Your task to perform on an android device: Search for hotels in Washington DC Image 0: 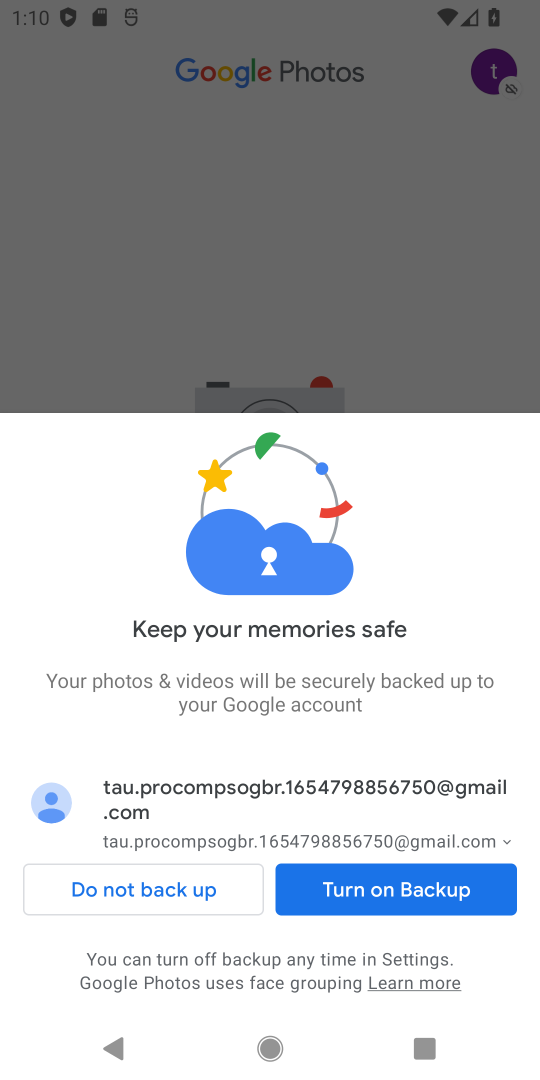
Step 0: press home button
Your task to perform on an android device: Search for hotels in Washington DC Image 1: 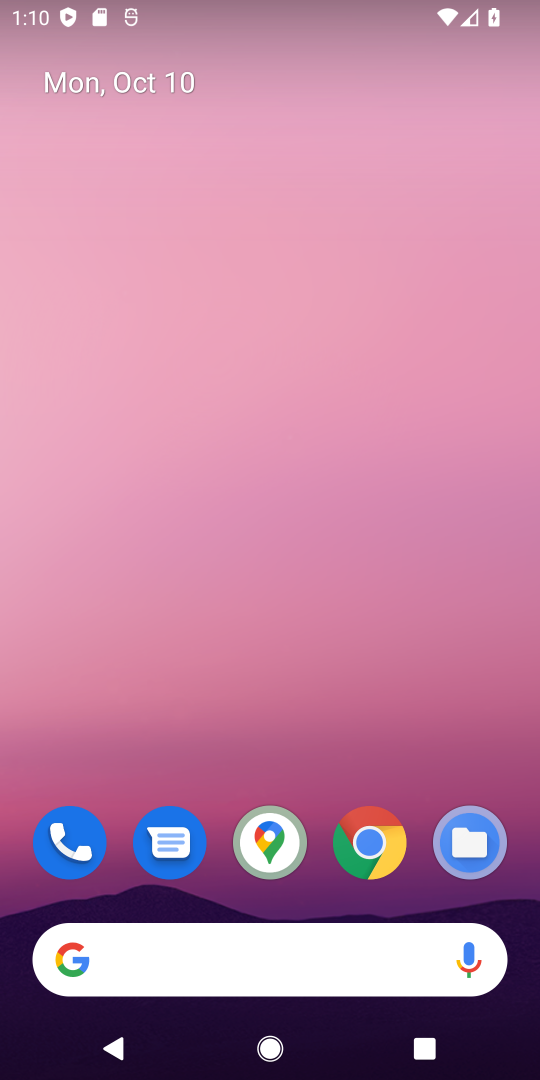
Step 1: click (389, 826)
Your task to perform on an android device: Search for hotels in Washington DC Image 2: 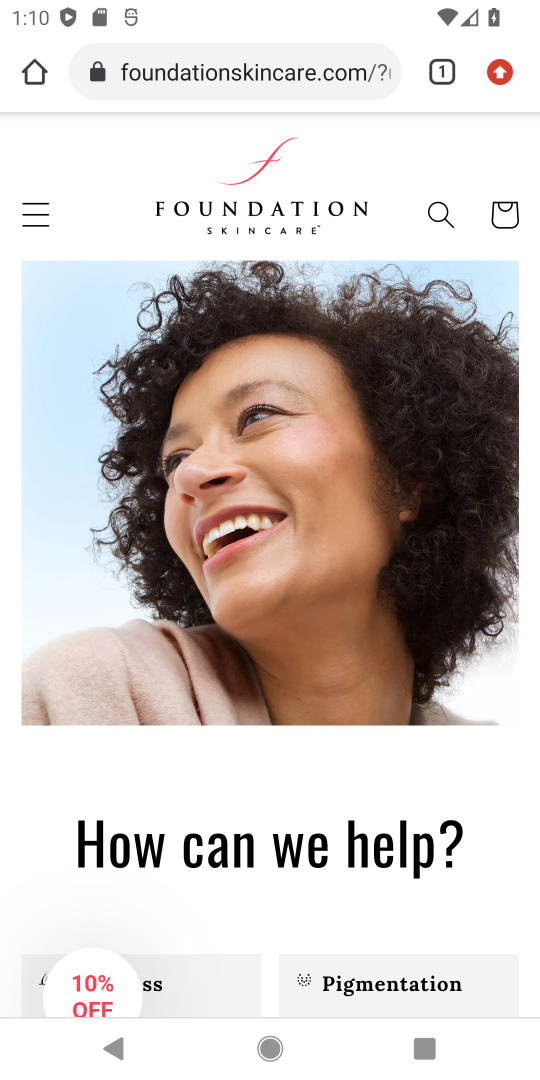
Step 2: click (269, 70)
Your task to perform on an android device: Search for hotels in Washington DC Image 3: 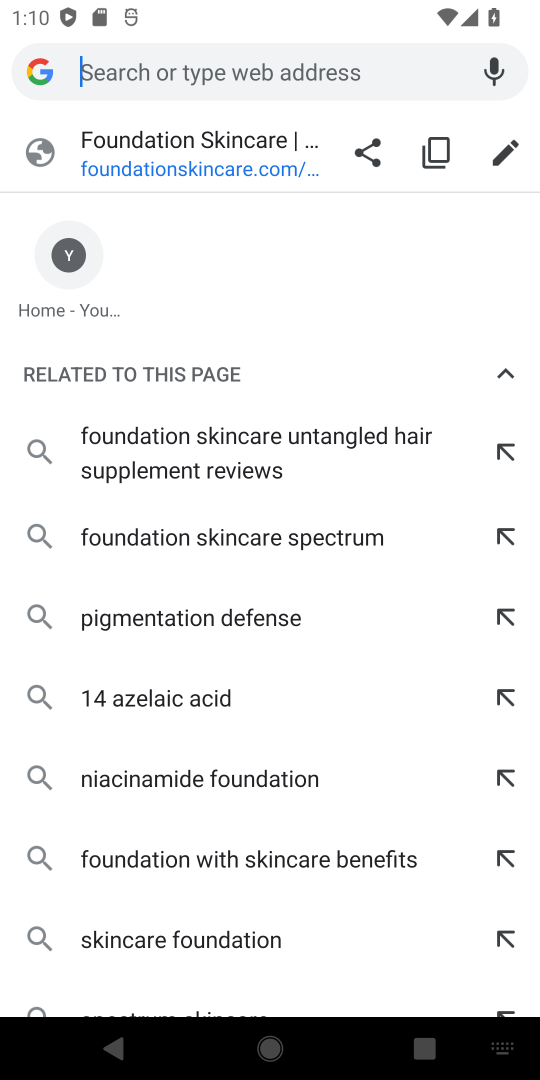
Step 3: type "hotels in washington DC"
Your task to perform on an android device: Search for hotels in Washington DC Image 4: 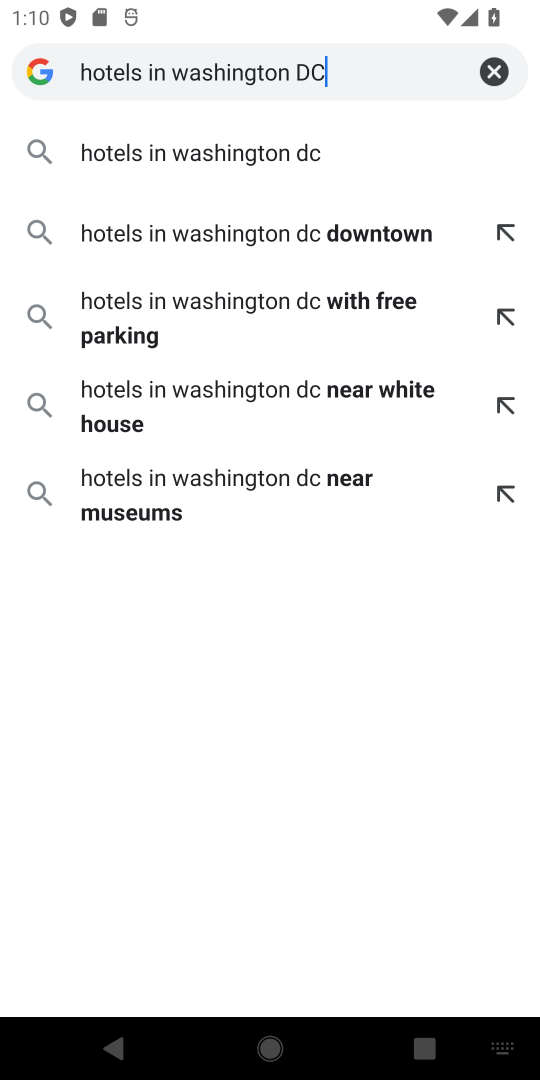
Step 4: type ""
Your task to perform on an android device: Search for hotels in Washington DC Image 5: 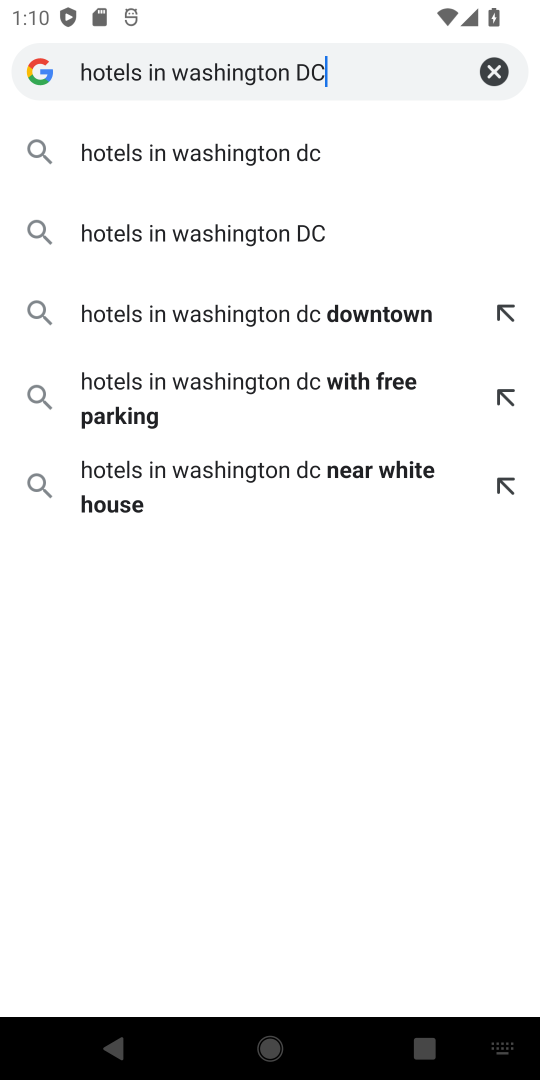
Step 5: press enter
Your task to perform on an android device: Search for hotels in Washington DC Image 6: 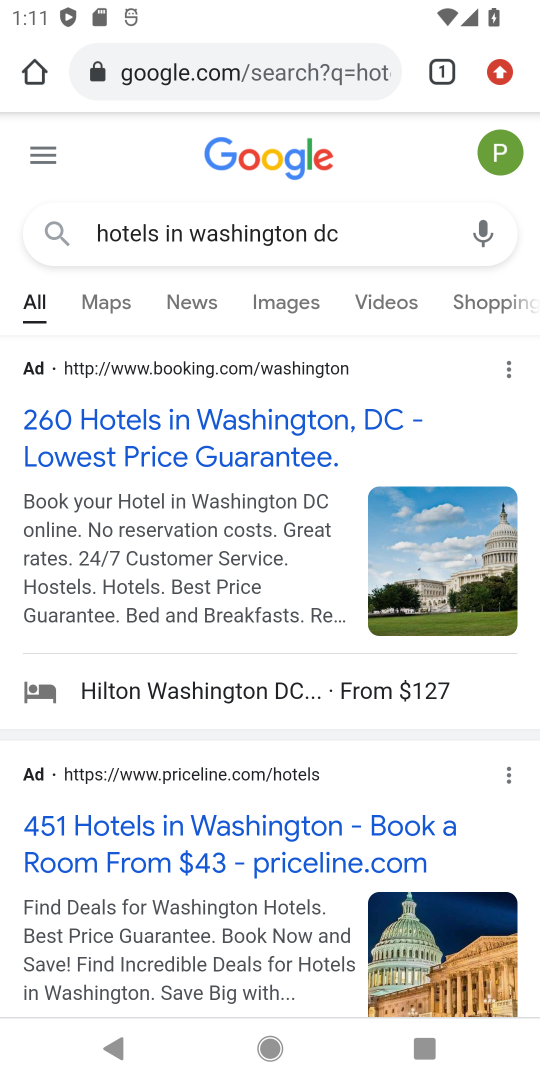
Step 6: click (235, 442)
Your task to perform on an android device: Search for hotels in Washington DC Image 7: 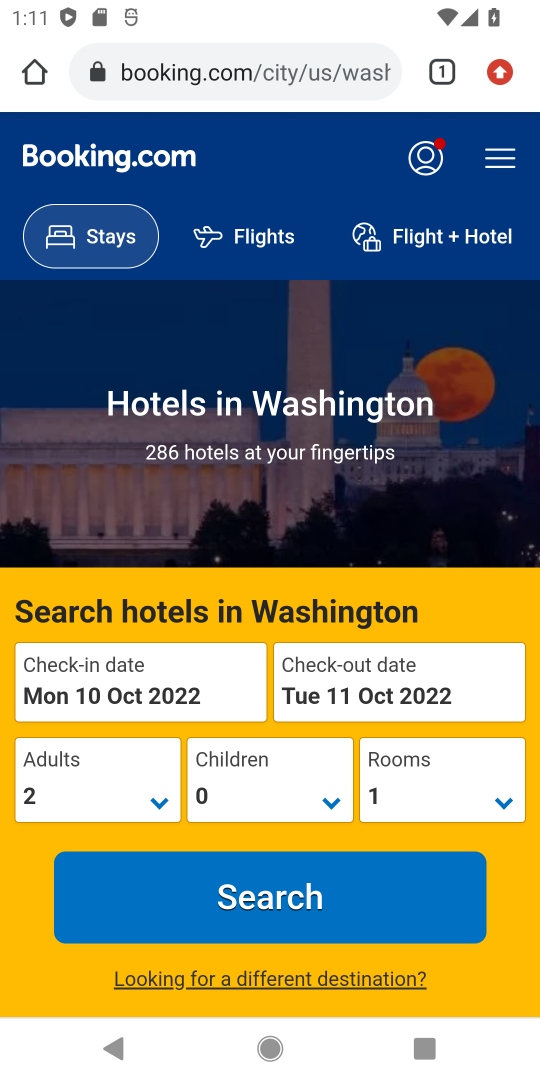
Step 7: task complete